Your task to perform on an android device: Go to battery settings Image 0: 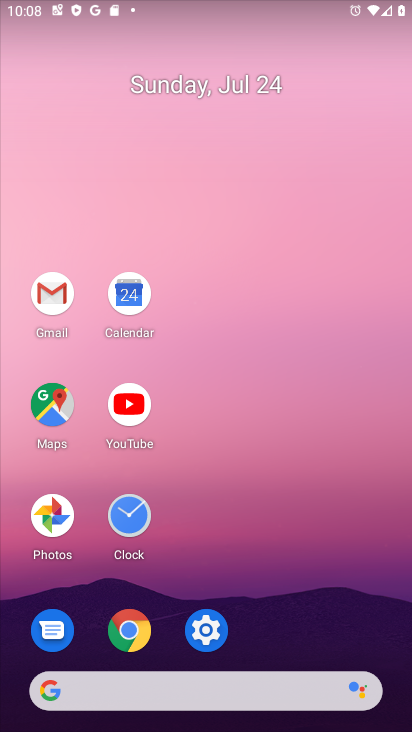
Step 0: click (202, 627)
Your task to perform on an android device: Go to battery settings Image 1: 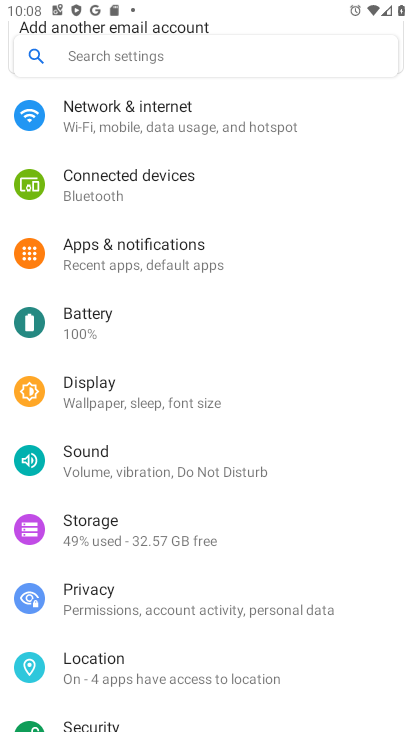
Step 1: click (79, 315)
Your task to perform on an android device: Go to battery settings Image 2: 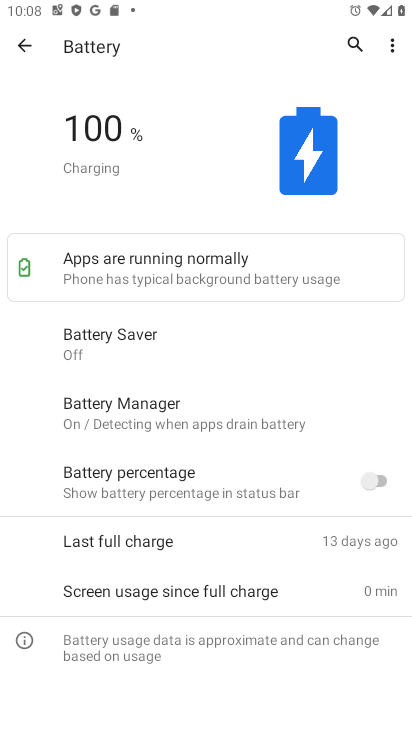
Step 2: task complete